Your task to perform on an android device: turn off location Image 0: 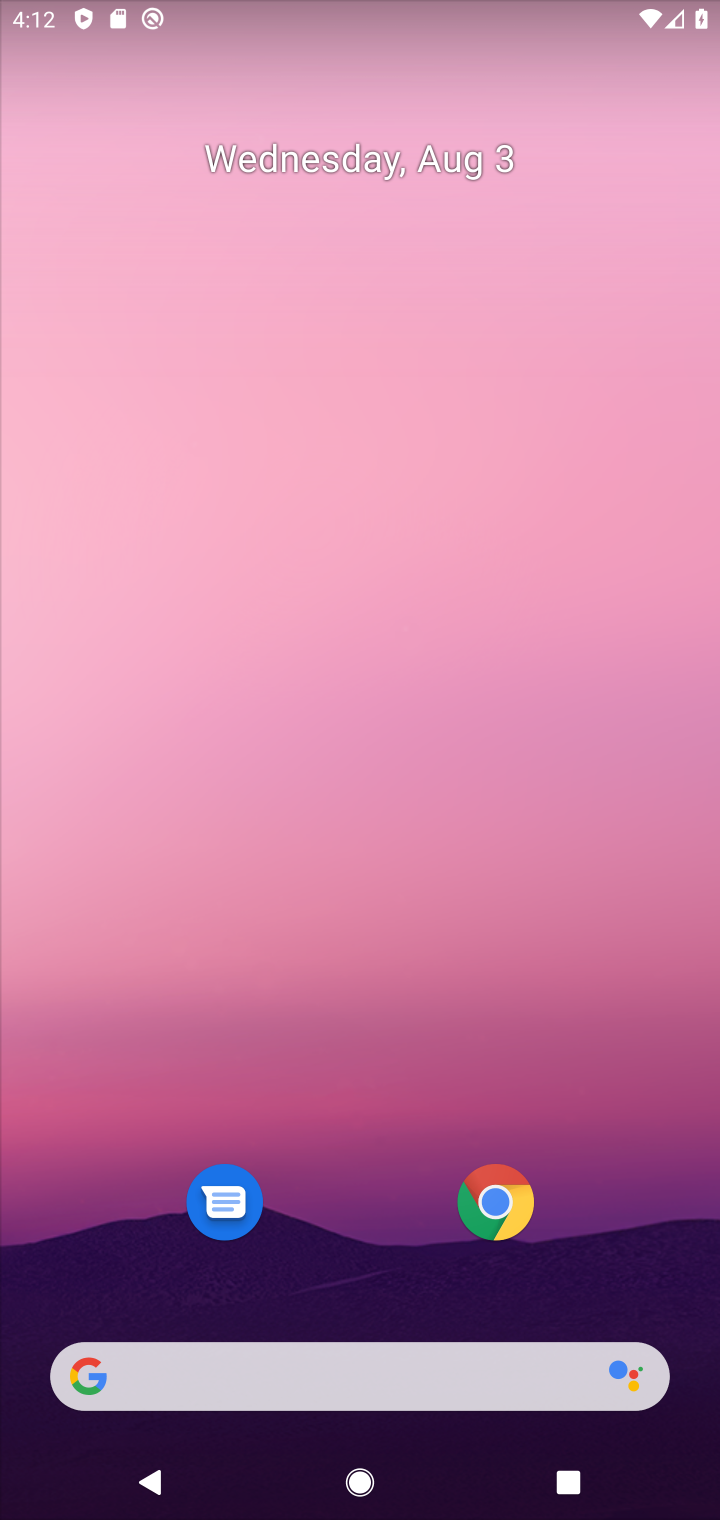
Step 0: press back button
Your task to perform on an android device: turn off location Image 1: 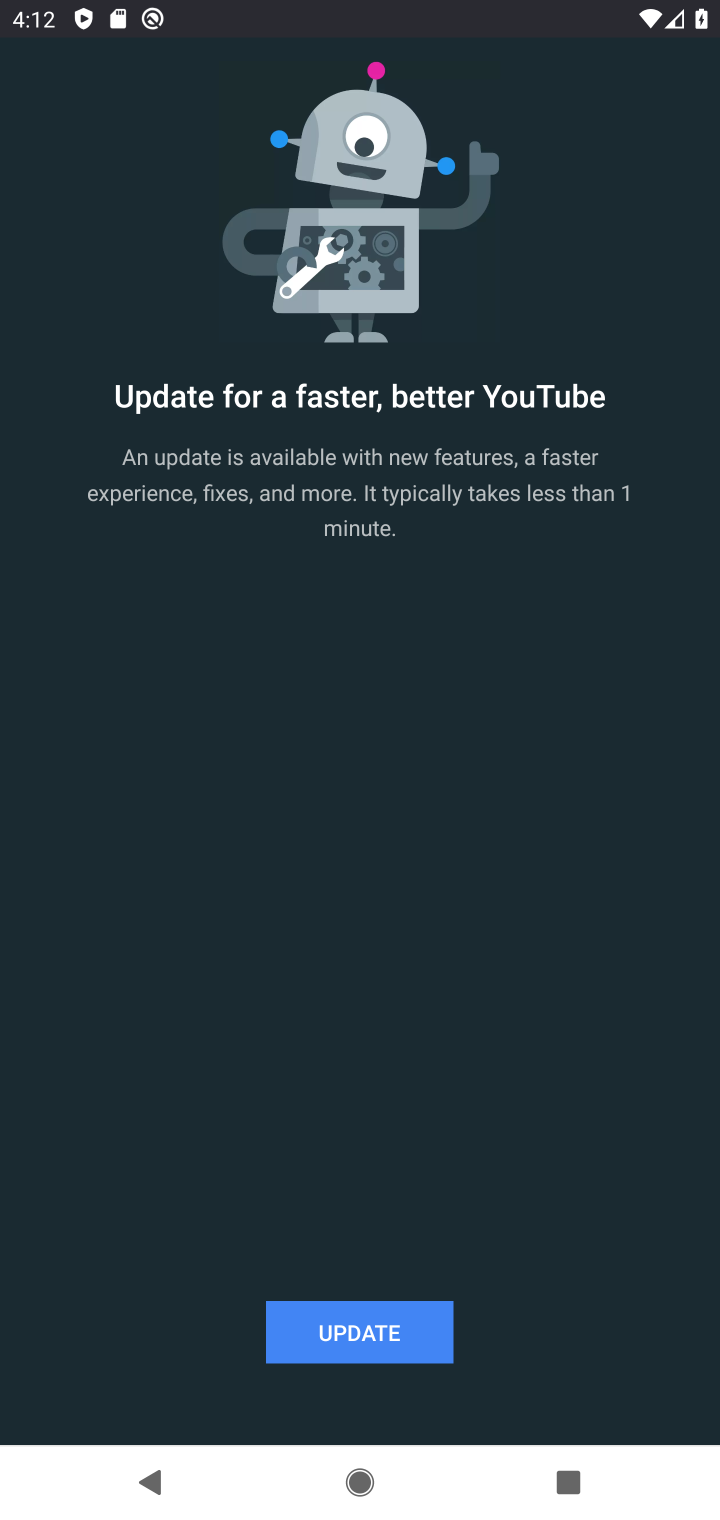
Step 1: click (338, 1365)
Your task to perform on an android device: turn off location Image 2: 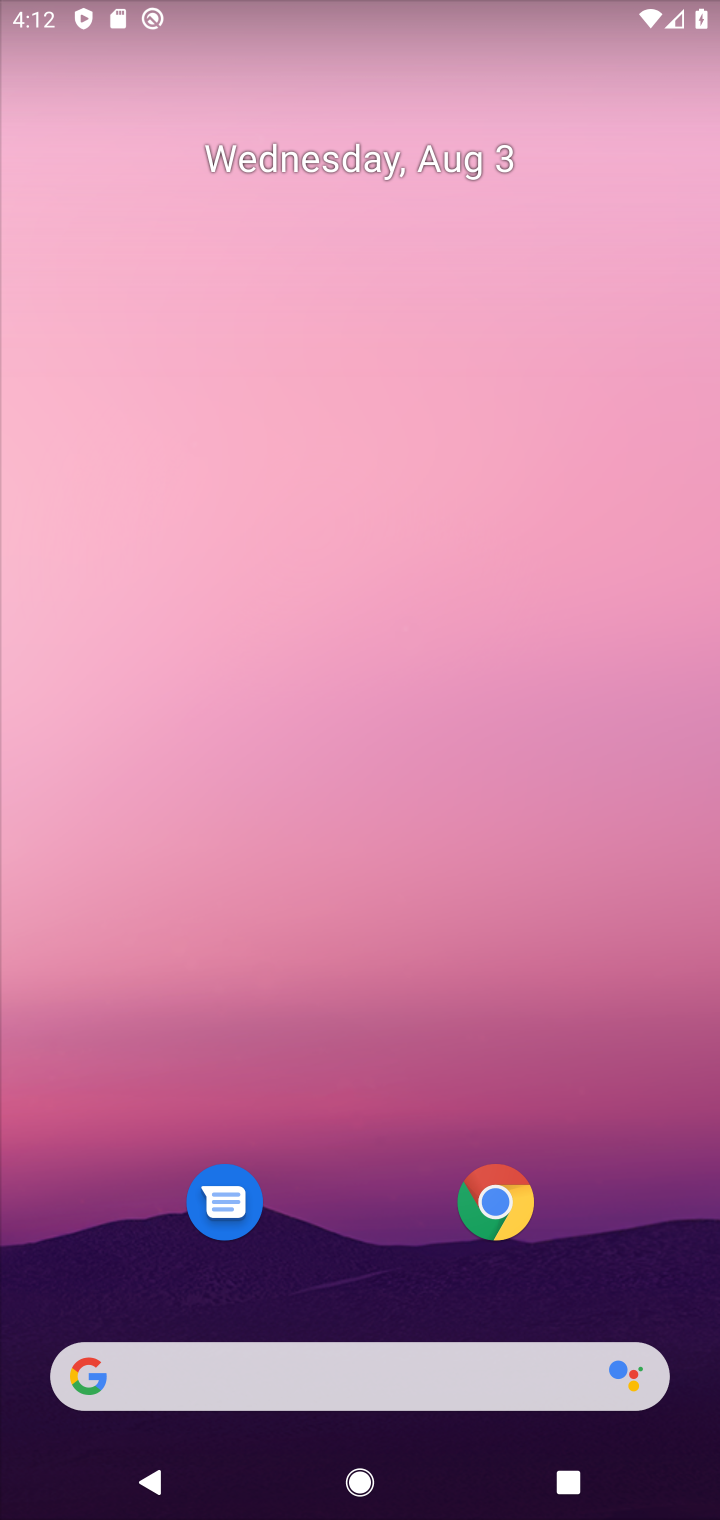
Step 2: drag from (294, 725) to (413, 53)
Your task to perform on an android device: turn off location Image 3: 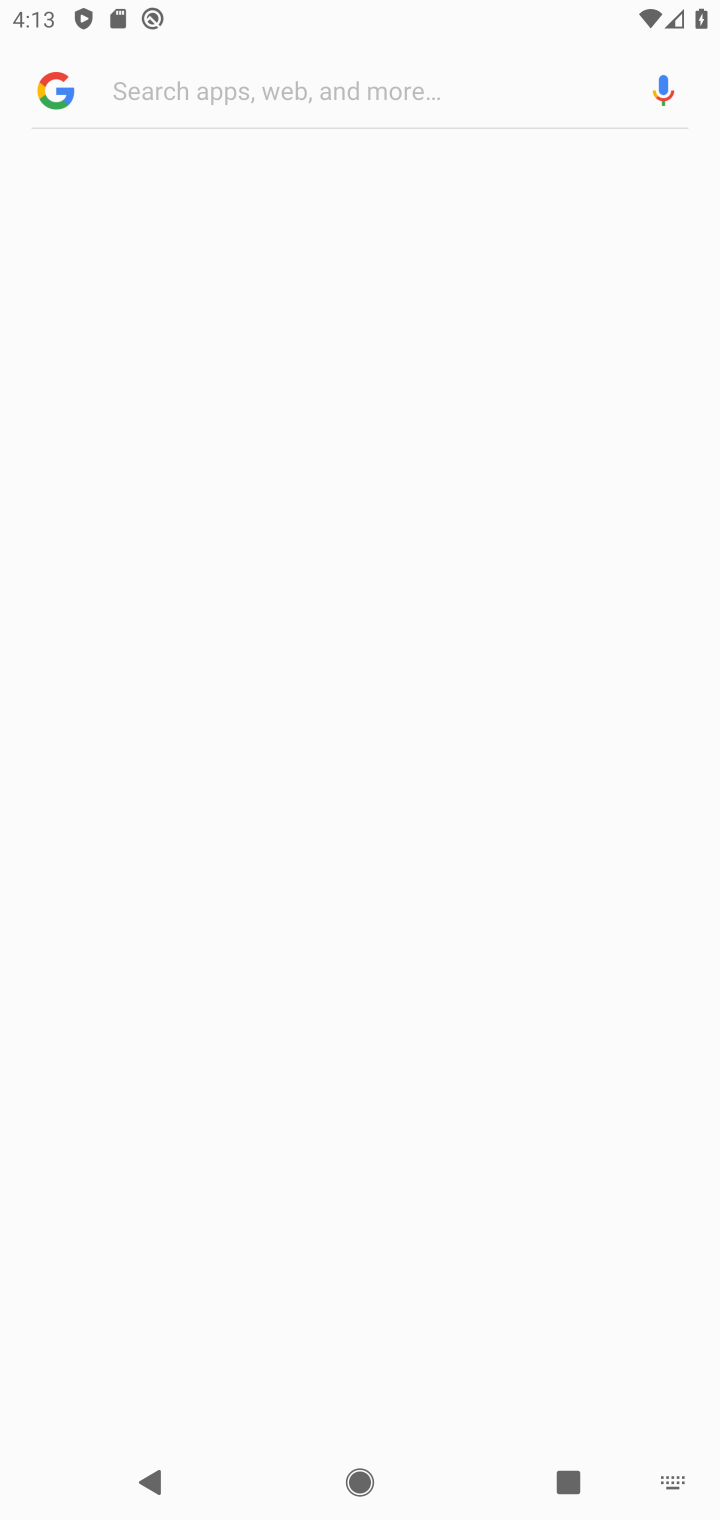
Step 3: press back button
Your task to perform on an android device: turn off location Image 4: 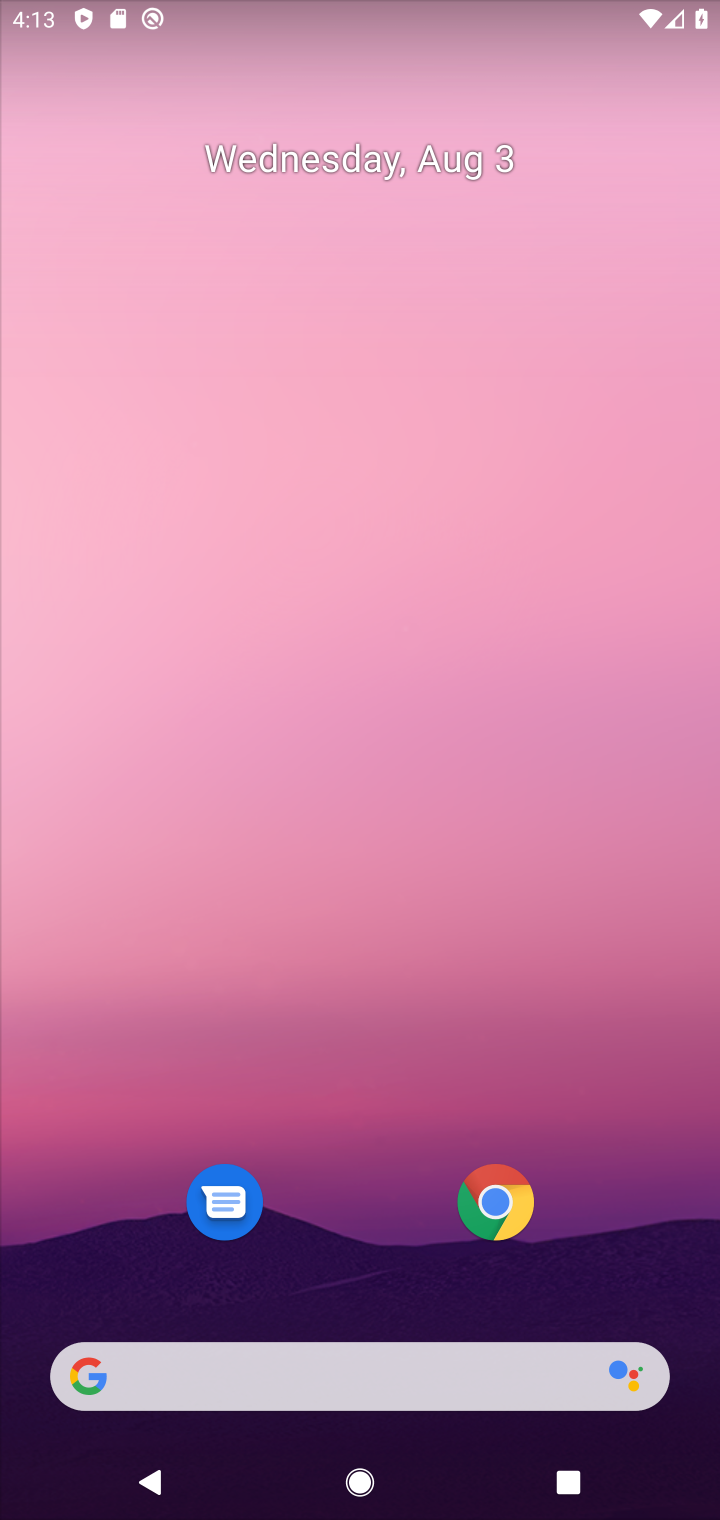
Step 4: drag from (393, 1221) to (595, 64)
Your task to perform on an android device: turn off location Image 5: 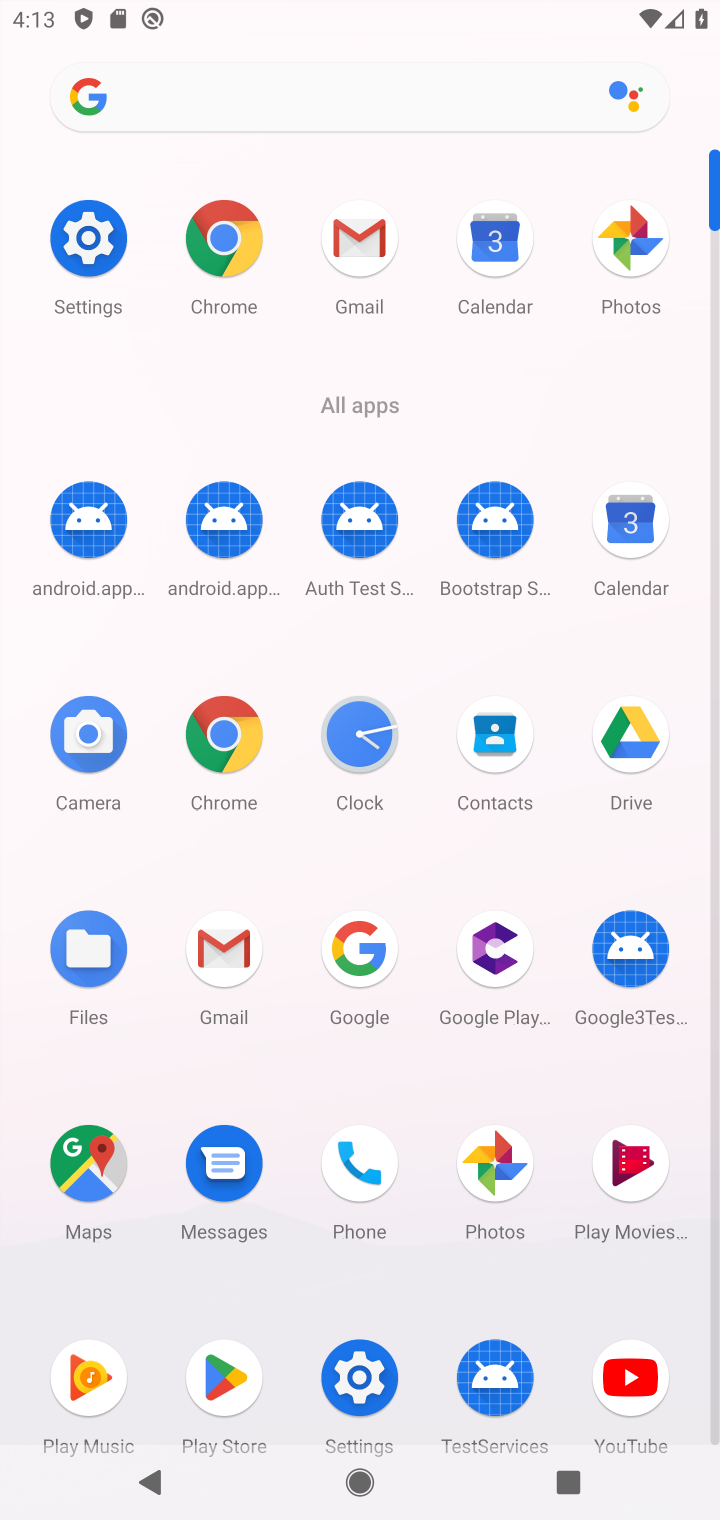
Step 5: click (55, 243)
Your task to perform on an android device: turn off location Image 6: 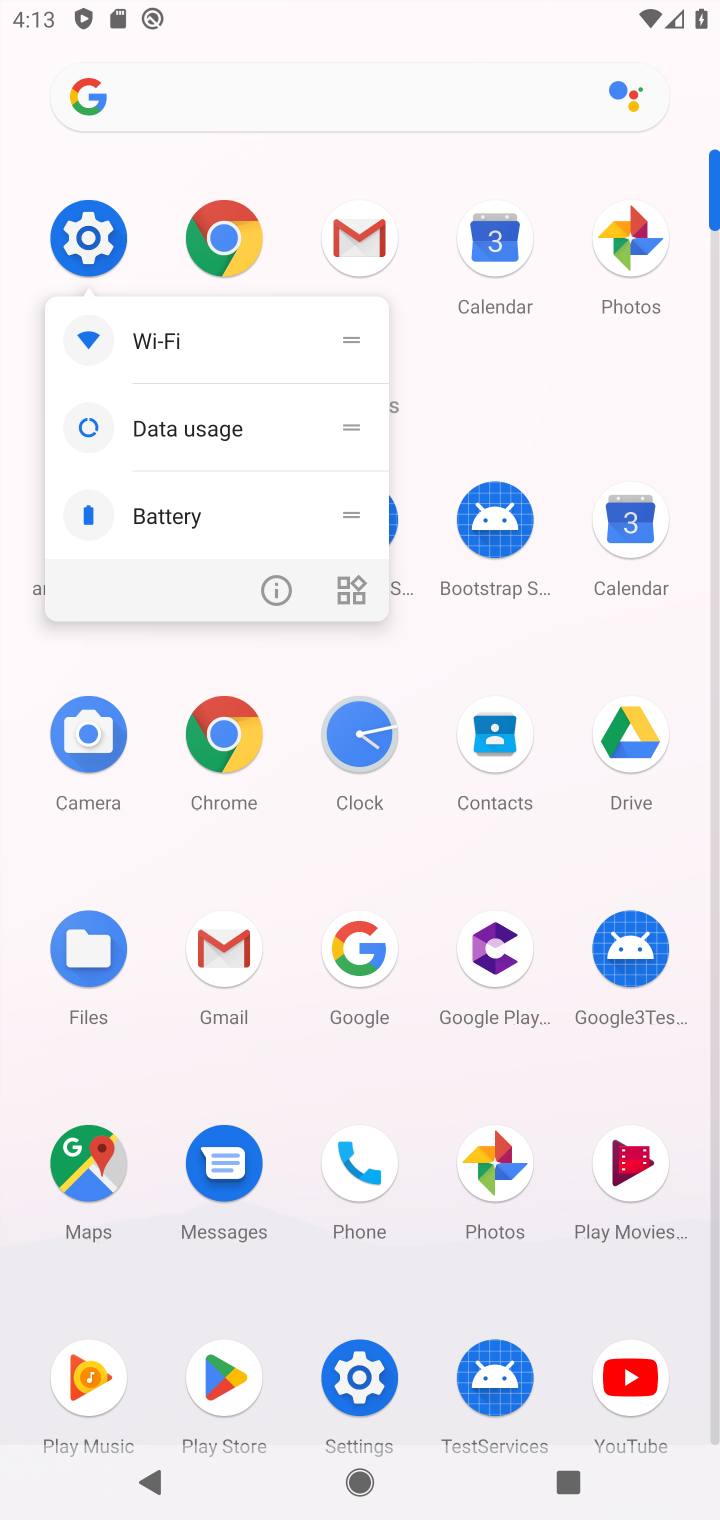
Step 6: click (84, 214)
Your task to perform on an android device: turn off location Image 7: 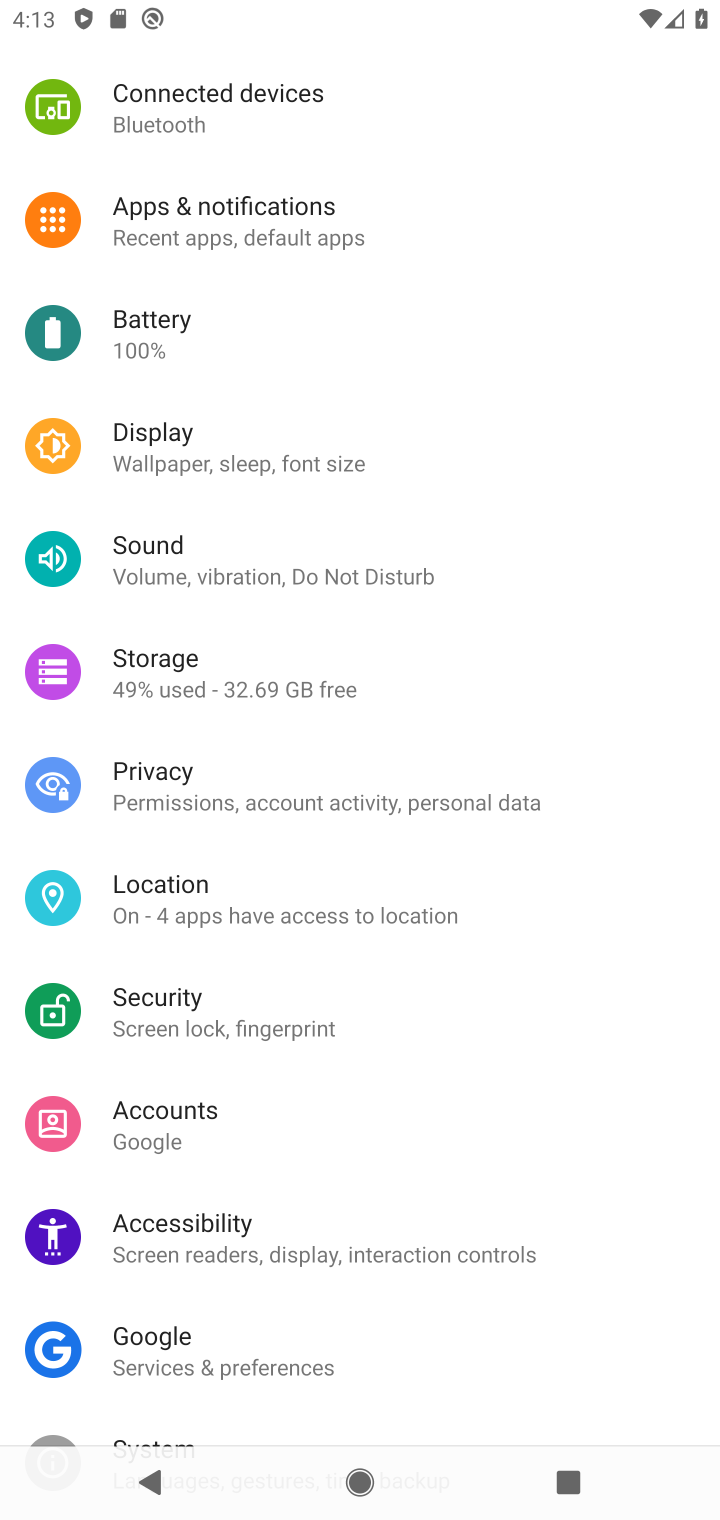
Step 7: click (168, 912)
Your task to perform on an android device: turn off location Image 8: 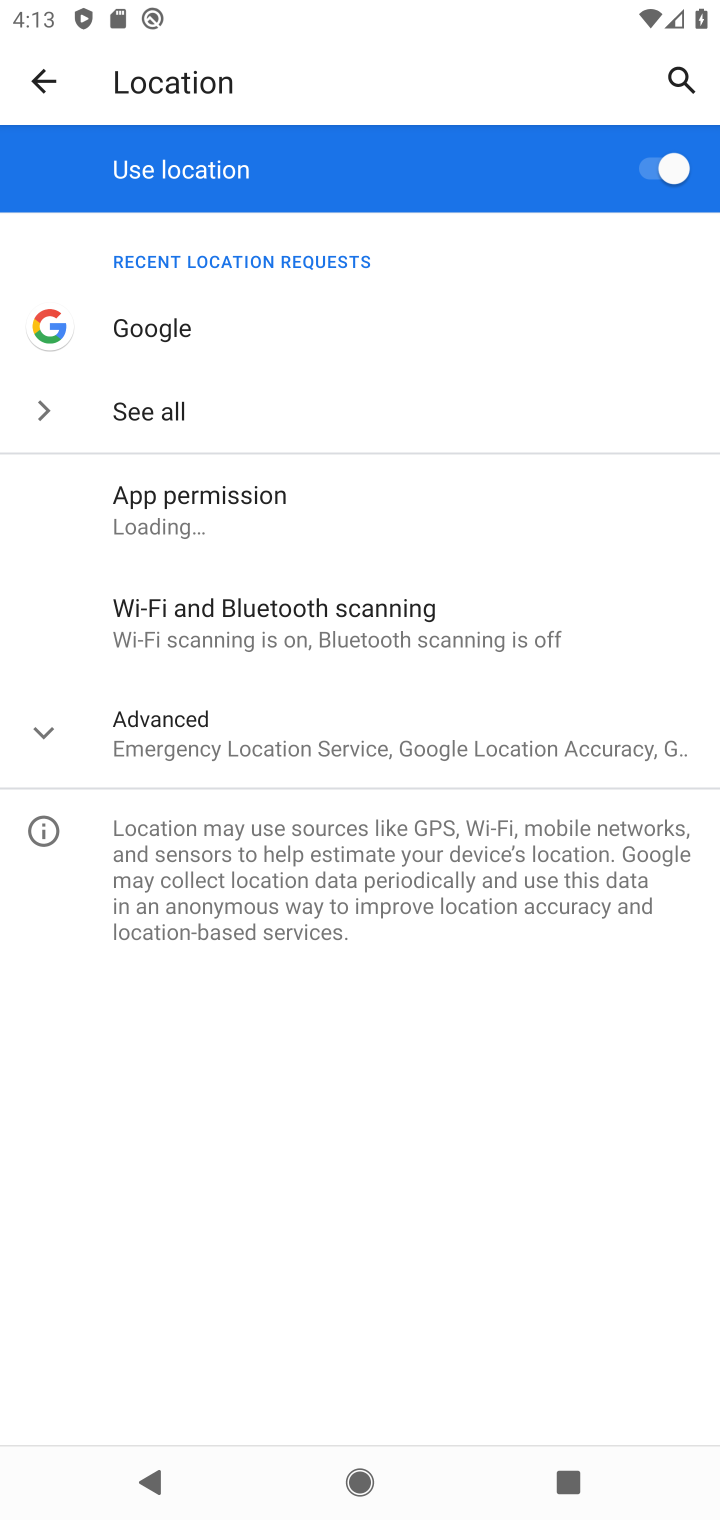
Step 8: click (680, 166)
Your task to perform on an android device: turn off location Image 9: 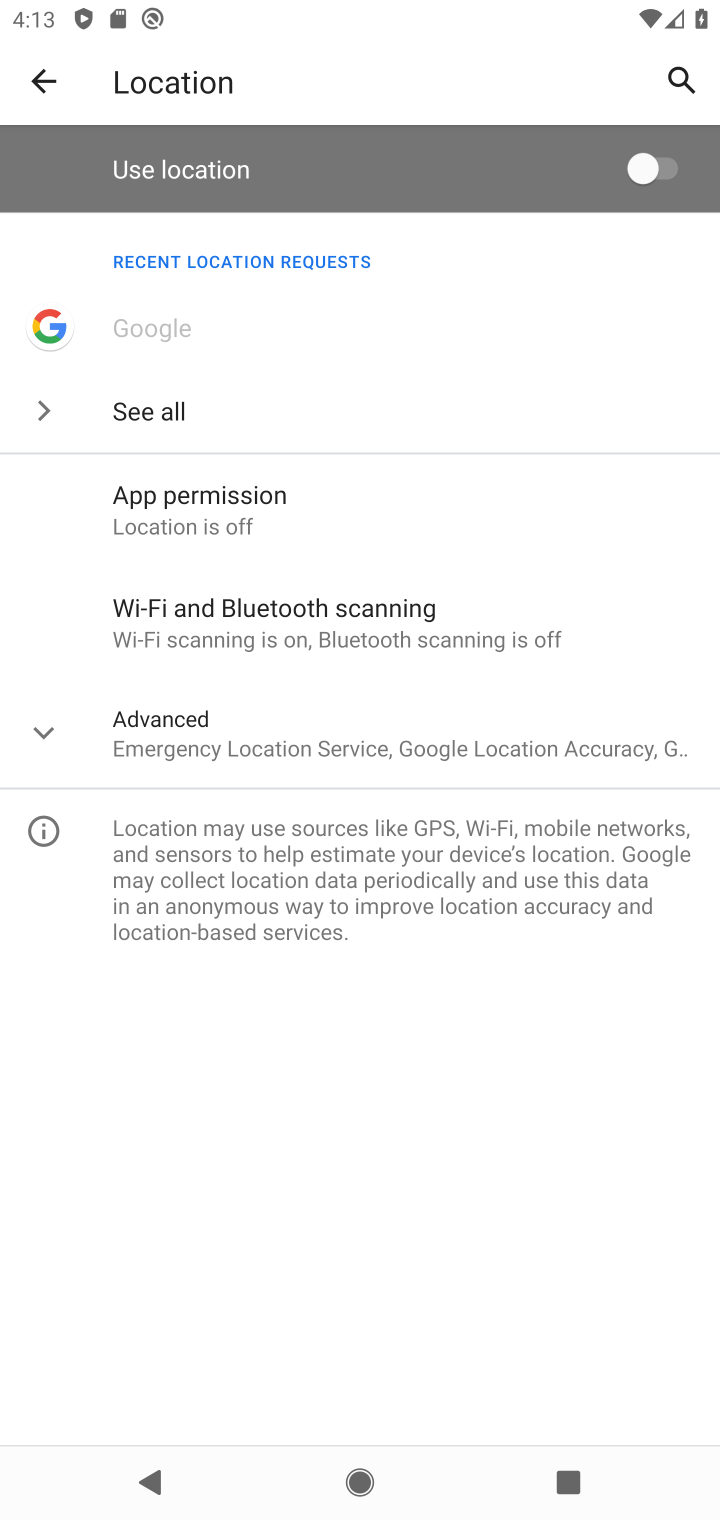
Step 9: task complete